Your task to perform on an android device: toggle location history Image 0: 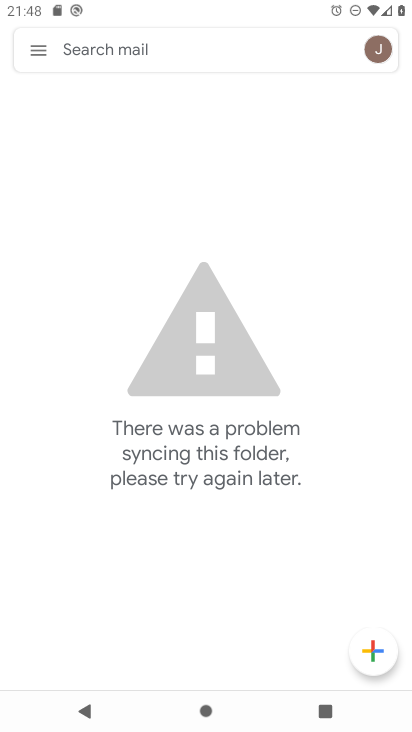
Step 0: press home button
Your task to perform on an android device: toggle location history Image 1: 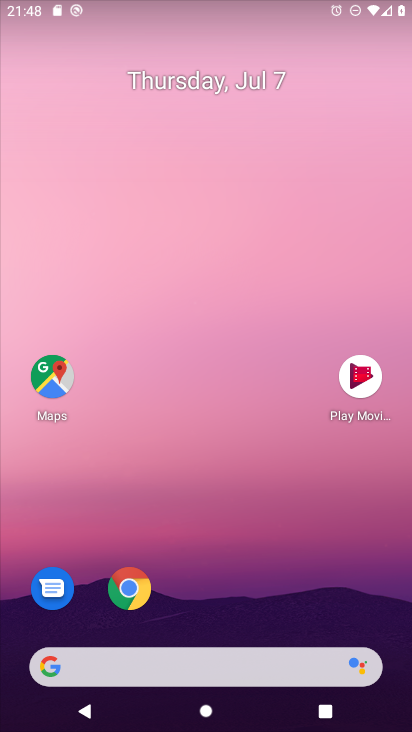
Step 1: drag from (250, 620) to (250, 269)
Your task to perform on an android device: toggle location history Image 2: 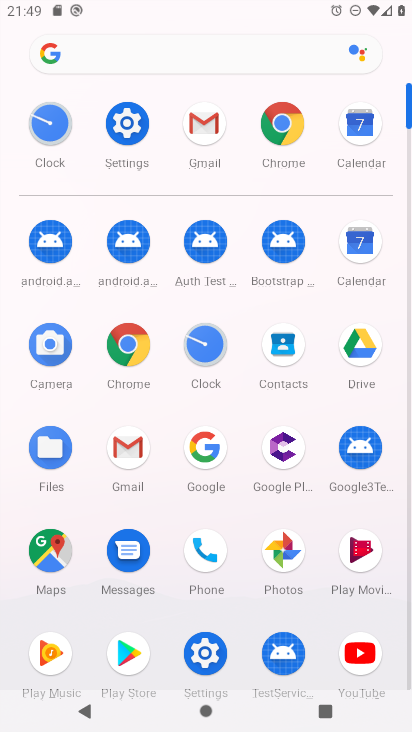
Step 2: click (286, 110)
Your task to perform on an android device: toggle location history Image 3: 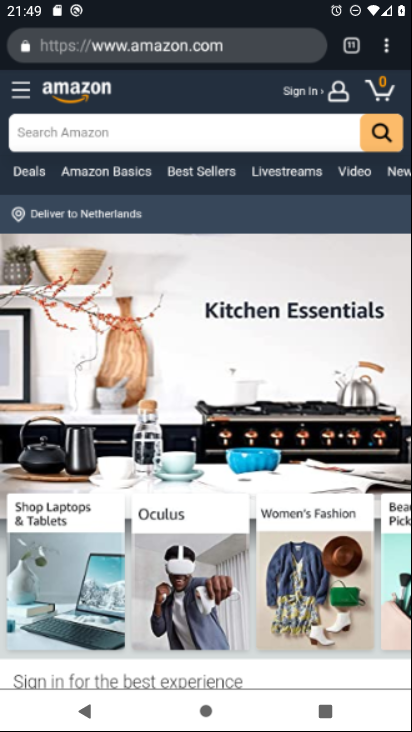
Step 3: click (391, 49)
Your task to perform on an android device: toggle location history Image 4: 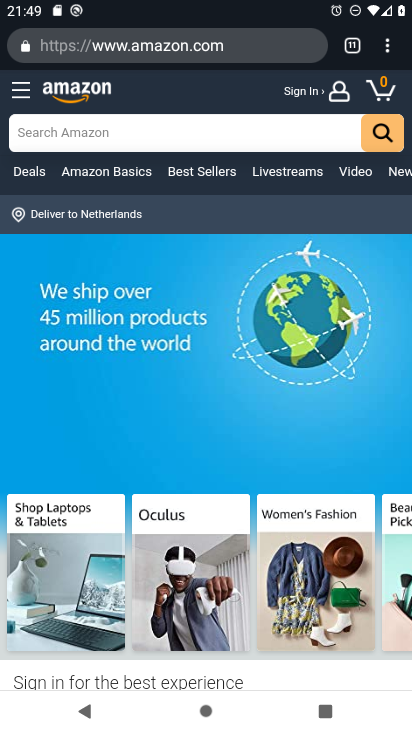
Step 4: click (384, 39)
Your task to perform on an android device: toggle location history Image 5: 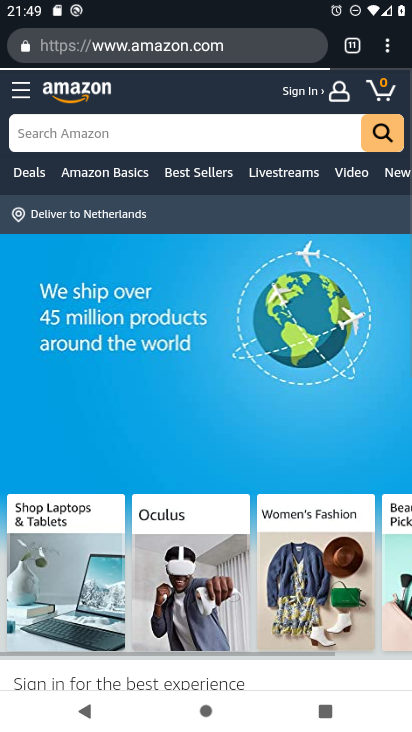
Step 5: click (389, 53)
Your task to perform on an android device: toggle location history Image 6: 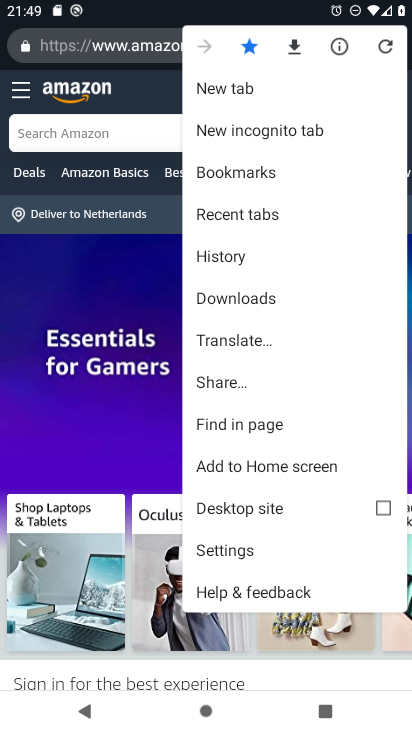
Step 6: press home button
Your task to perform on an android device: toggle location history Image 7: 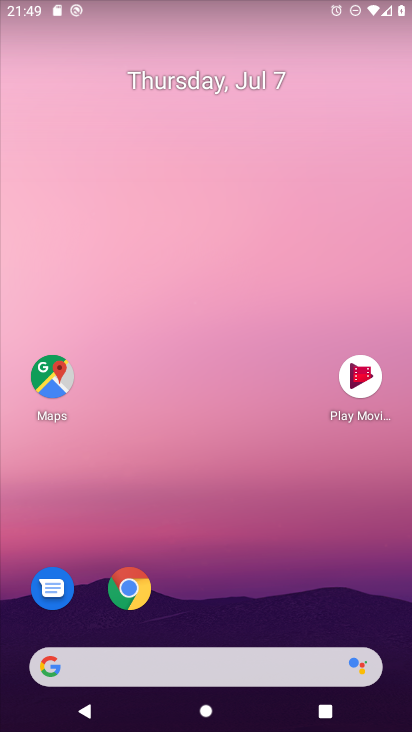
Step 7: drag from (281, 604) to (263, 223)
Your task to perform on an android device: toggle location history Image 8: 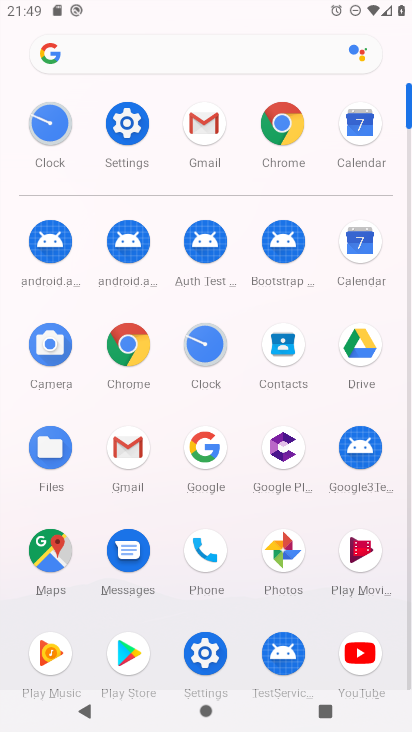
Step 8: click (134, 110)
Your task to perform on an android device: toggle location history Image 9: 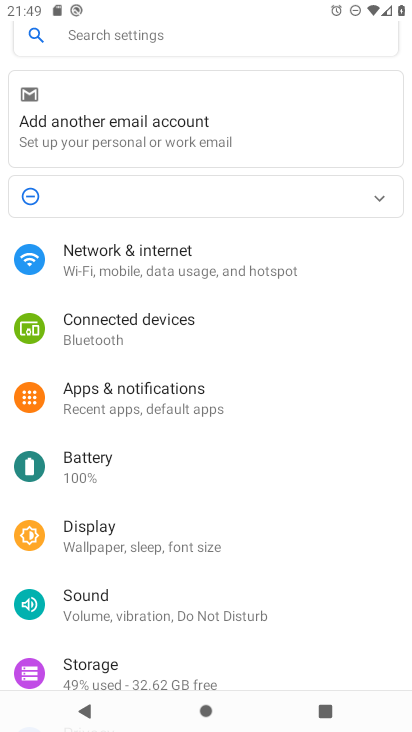
Step 9: drag from (201, 605) to (205, 220)
Your task to perform on an android device: toggle location history Image 10: 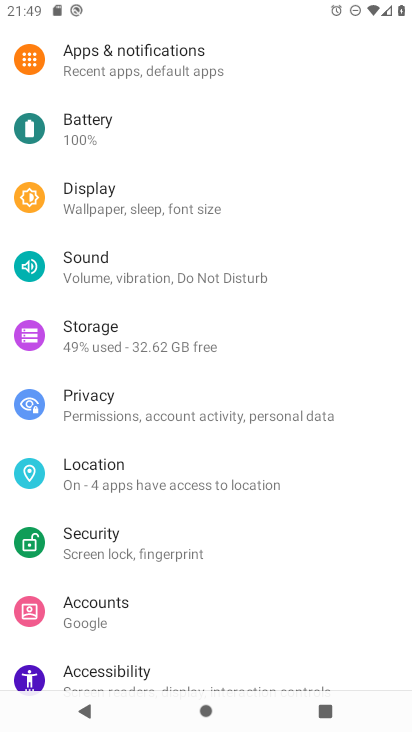
Step 10: click (126, 483)
Your task to perform on an android device: toggle location history Image 11: 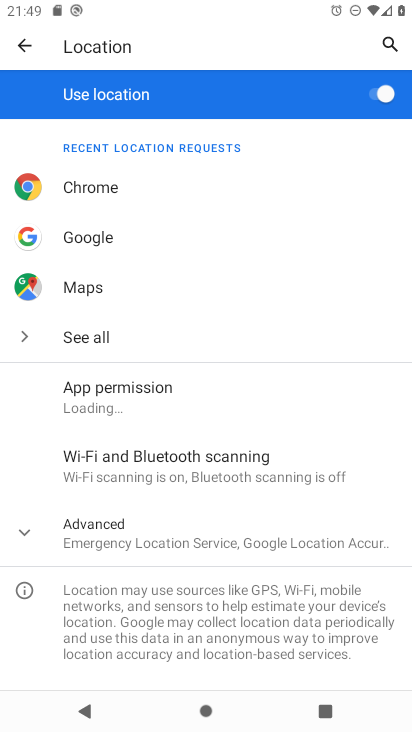
Step 11: click (185, 550)
Your task to perform on an android device: toggle location history Image 12: 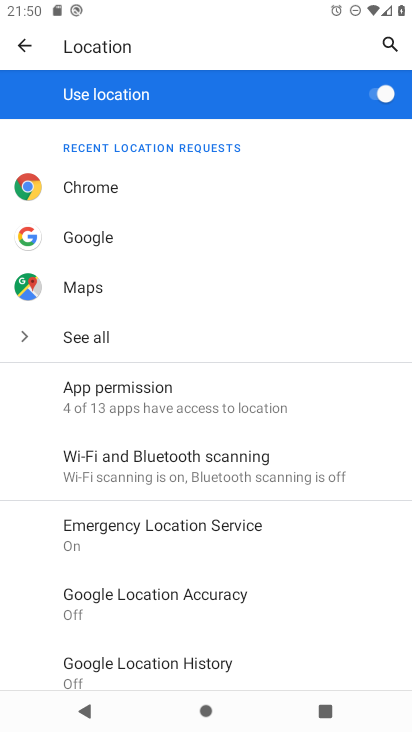
Step 12: click (209, 663)
Your task to perform on an android device: toggle location history Image 13: 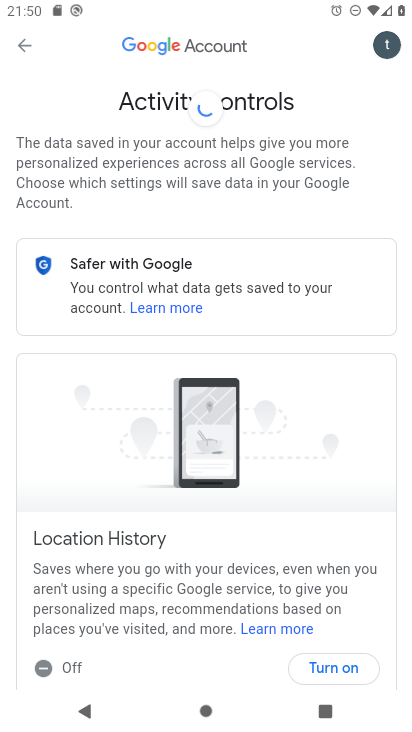
Step 13: drag from (232, 631) to (319, 313)
Your task to perform on an android device: toggle location history Image 14: 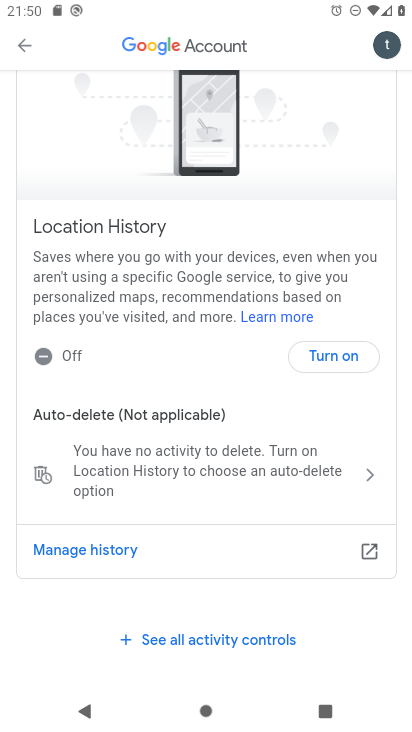
Step 14: click (326, 350)
Your task to perform on an android device: toggle location history Image 15: 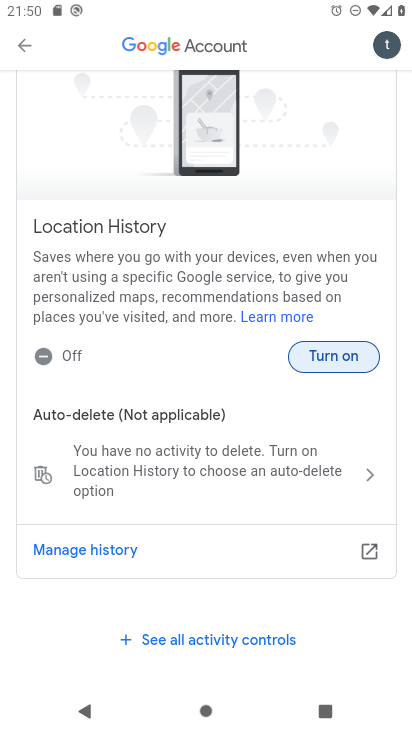
Step 15: task complete